Your task to perform on an android device: find which apps use the phone's location Image 0: 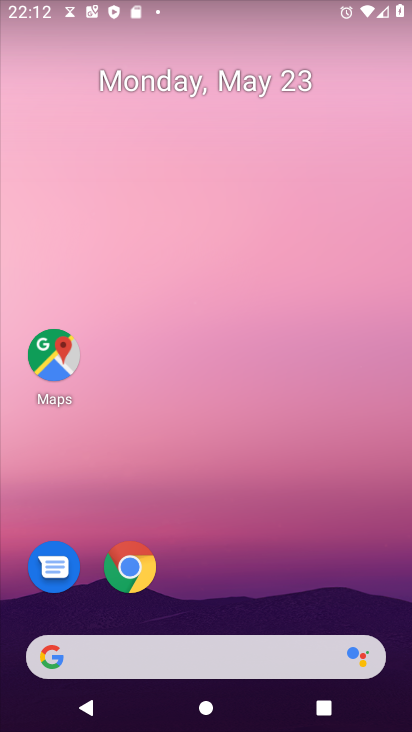
Step 0: drag from (271, 591) to (290, 176)
Your task to perform on an android device: find which apps use the phone's location Image 1: 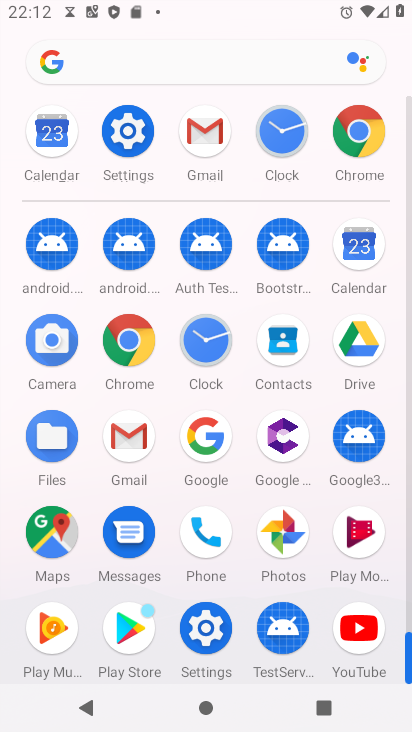
Step 1: click (213, 637)
Your task to perform on an android device: find which apps use the phone's location Image 2: 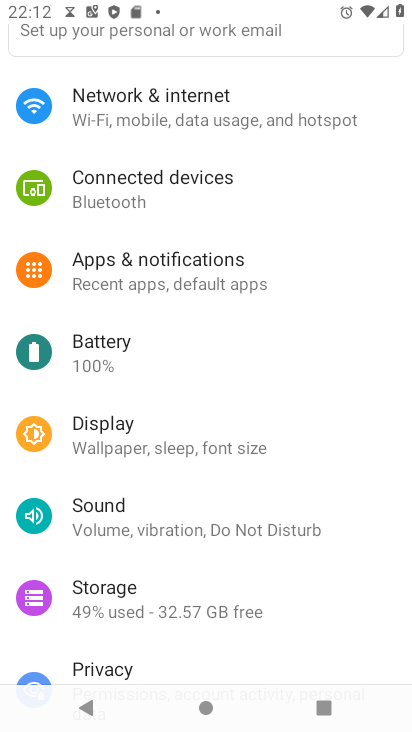
Step 2: drag from (270, 197) to (341, 144)
Your task to perform on an android device: find which apps use the phone's location Image 3: 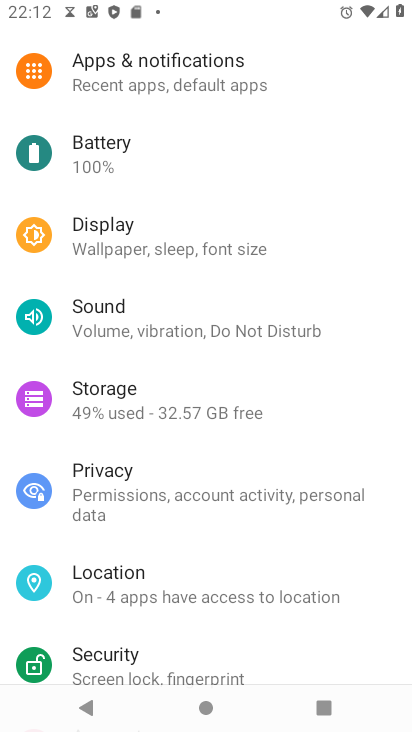
Step 3: click (154, 579)
Your task to perform on an android device: find which apps use the phone's location Image 4: 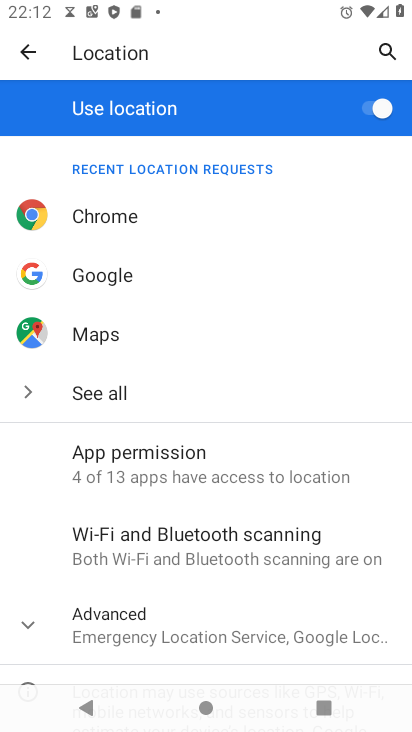
Step 4: task complete